Your task to perform on an android device: open app "Truecaller" Image 0: 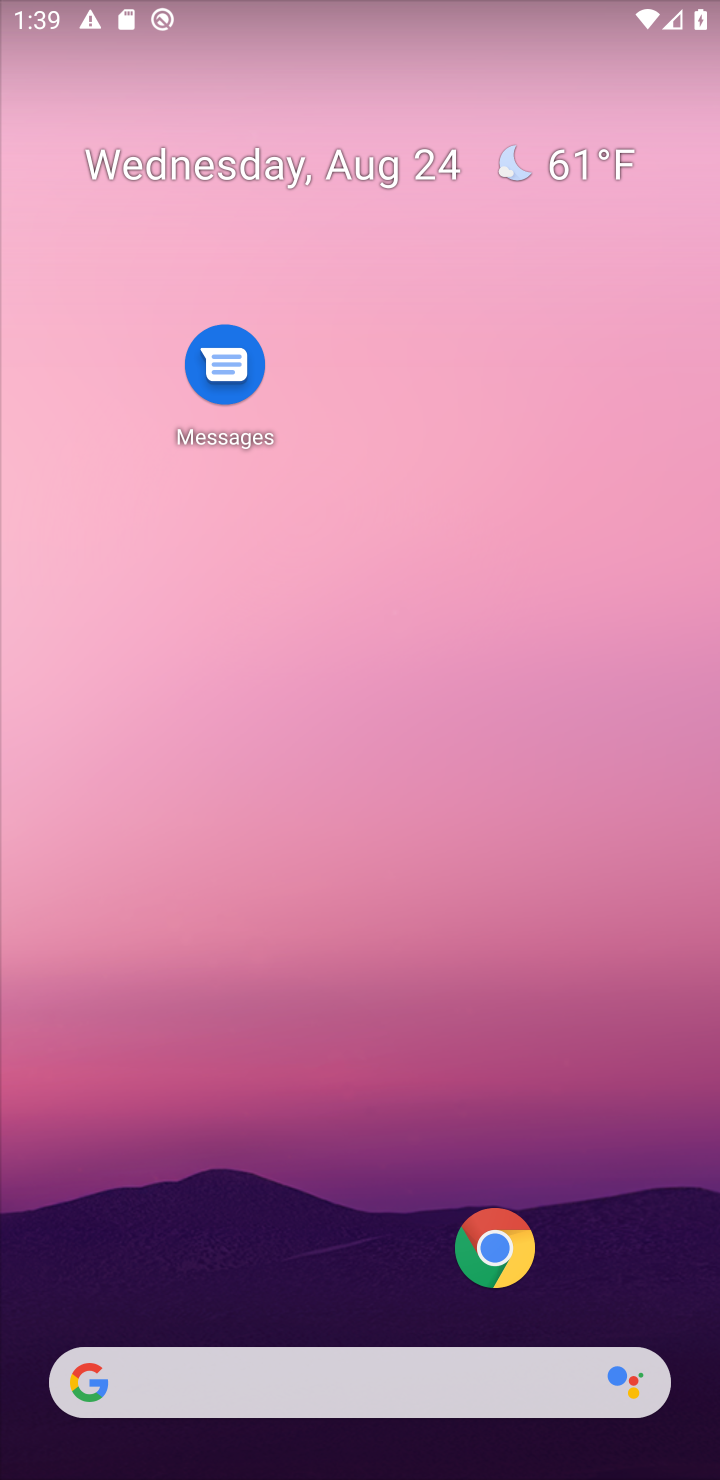
Step 0: drag from (248, 1349) to (353, 333)
Your task to perform on an android device: open app "Truecaller" Image 1: 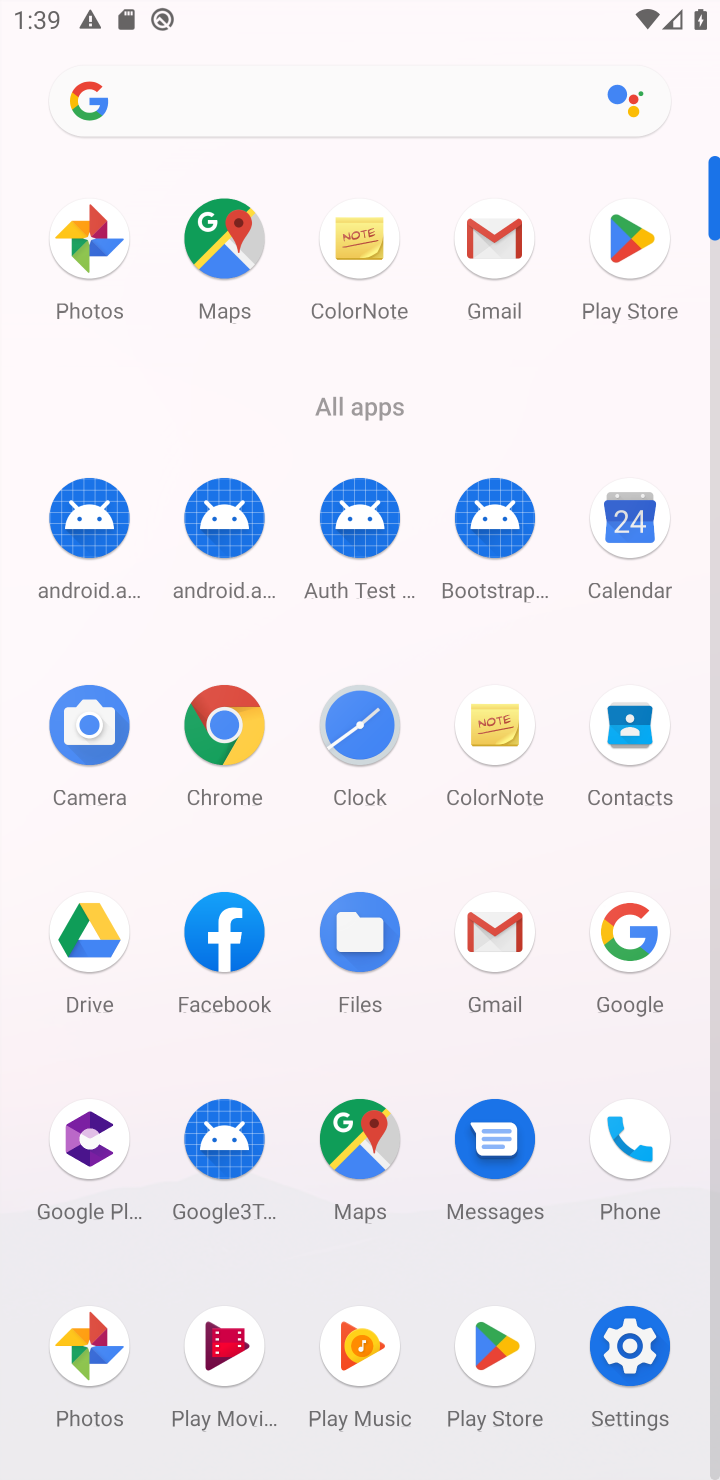
Step 1: click (635, 236)
Your task to perform on an android device: open app "Truecaller" Image 2: 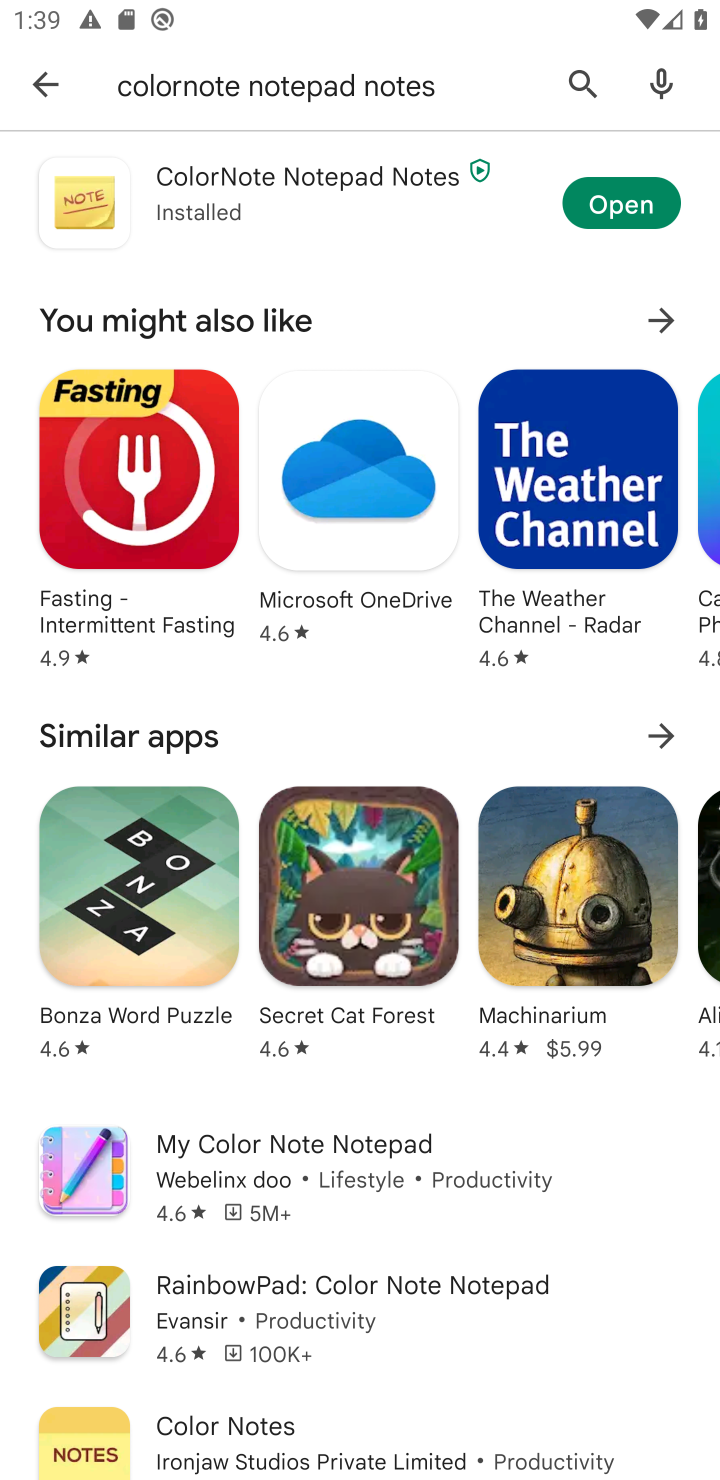
Step 2: click (51, 65)
Your task to perform on an android device: open app "Truecaller" Image 3: 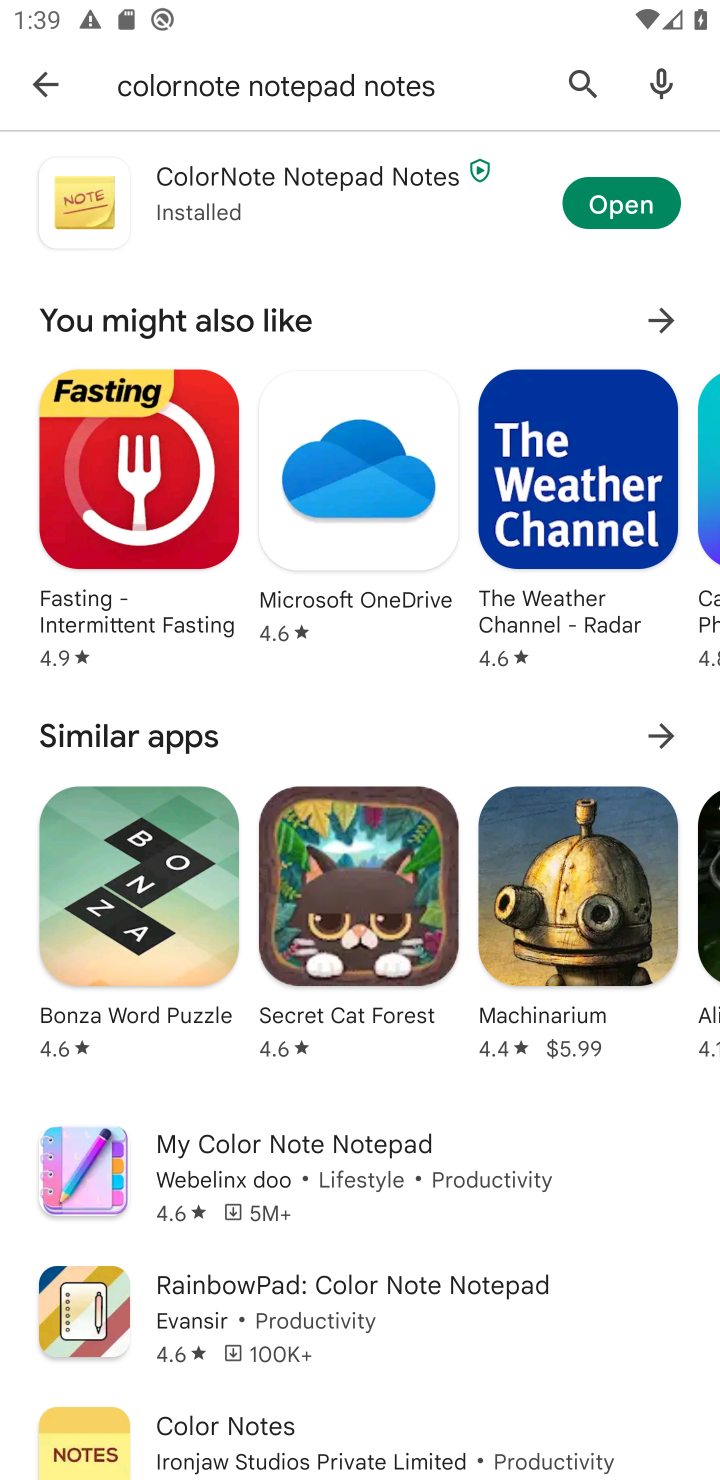
Step 3: click (567, 85)
Your task to perform on an android device: open app "Truecaller" Image 4: 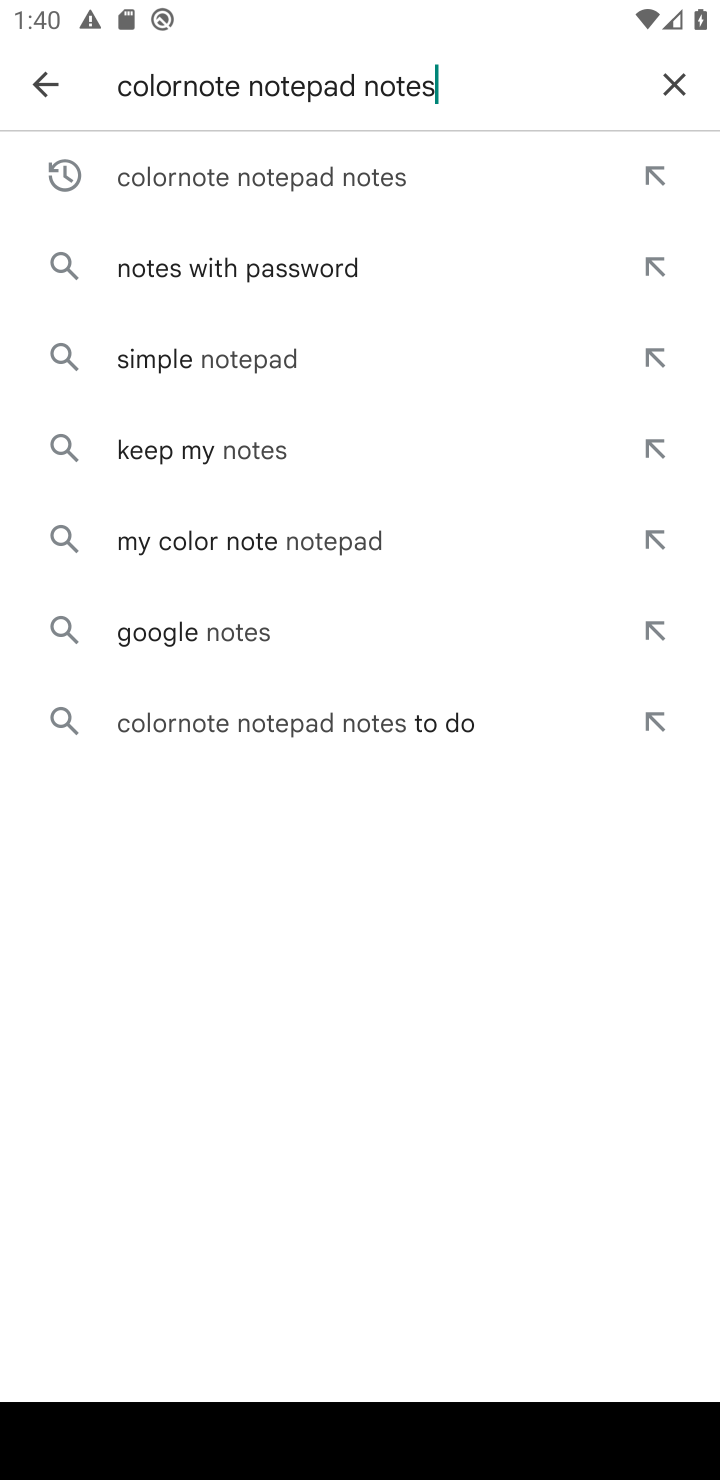
Step 4: click (687, 78)
Your task to perform on an android device: open app "Truecaller" Image 5: 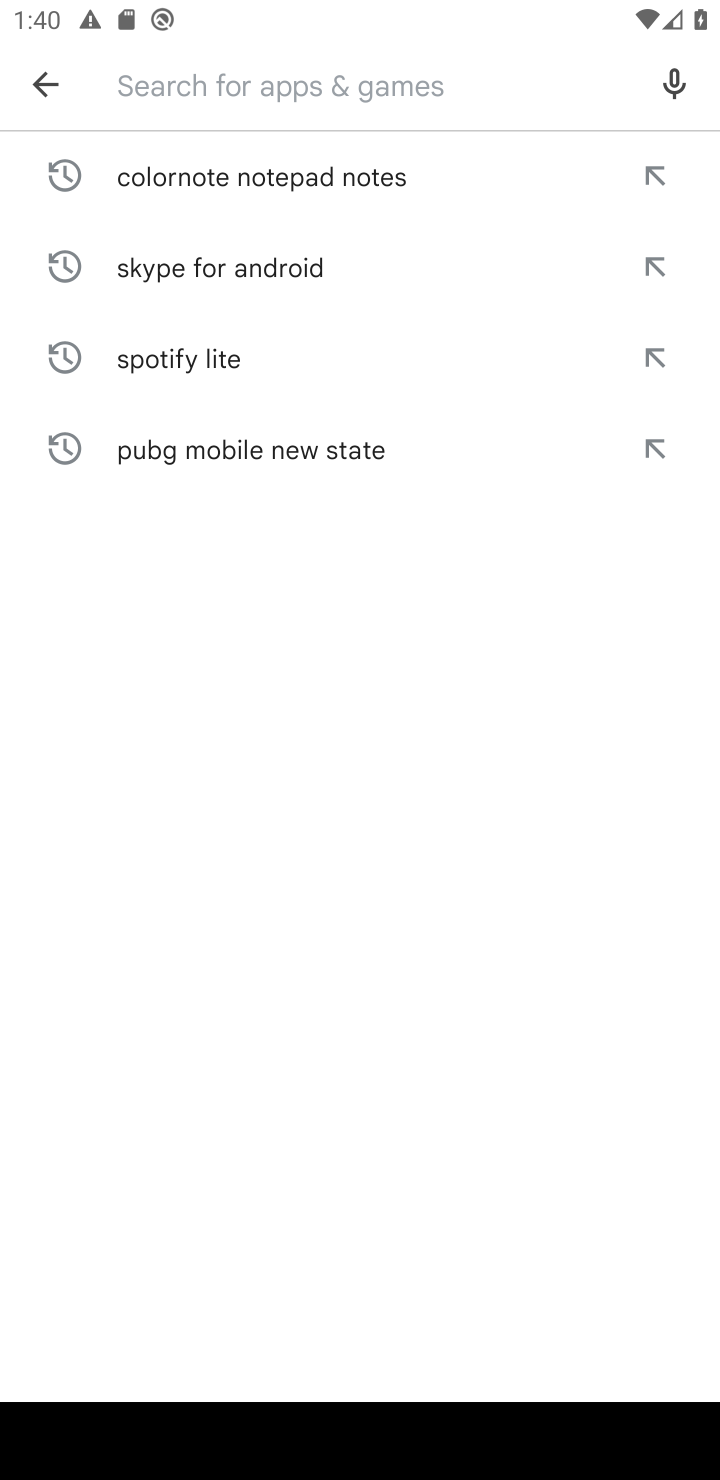
Step 5: click (192, 83)
Your task to perform on an android device: open app "Truecaller" Image 6: 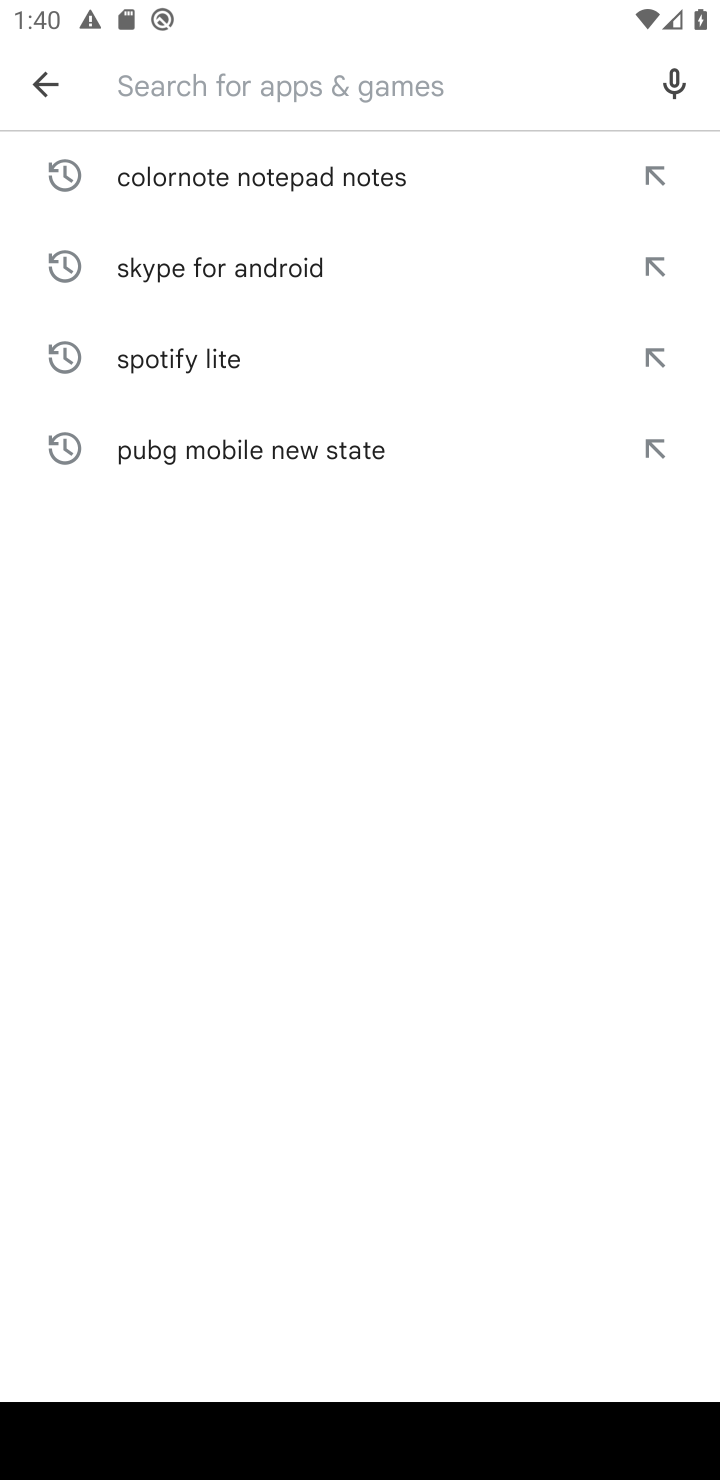
Step 6: type "truecaller "
Your task to perform on an android device: open app "Truecaller" Image 7: 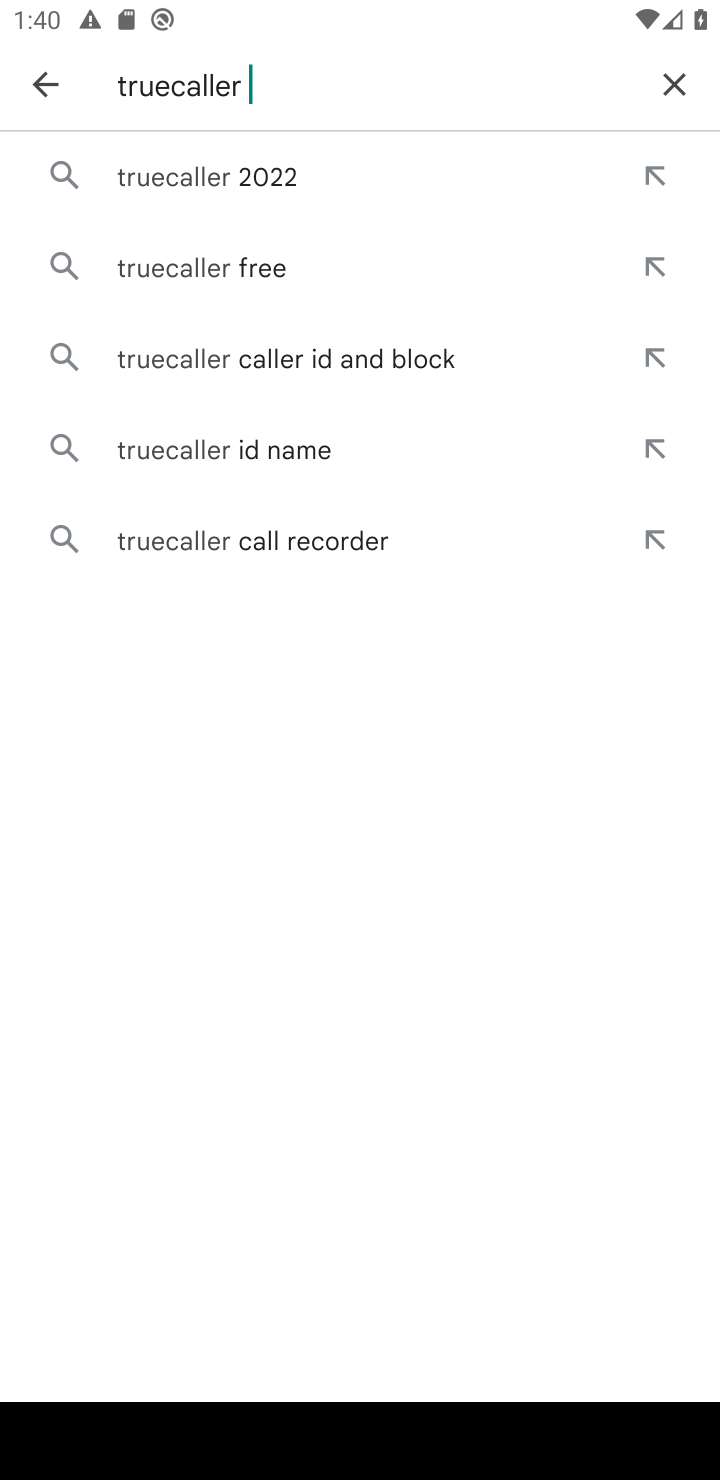
Step 7: click (258, 189)
Your task to perform on an android device: open app "Truecaller" Image 8: 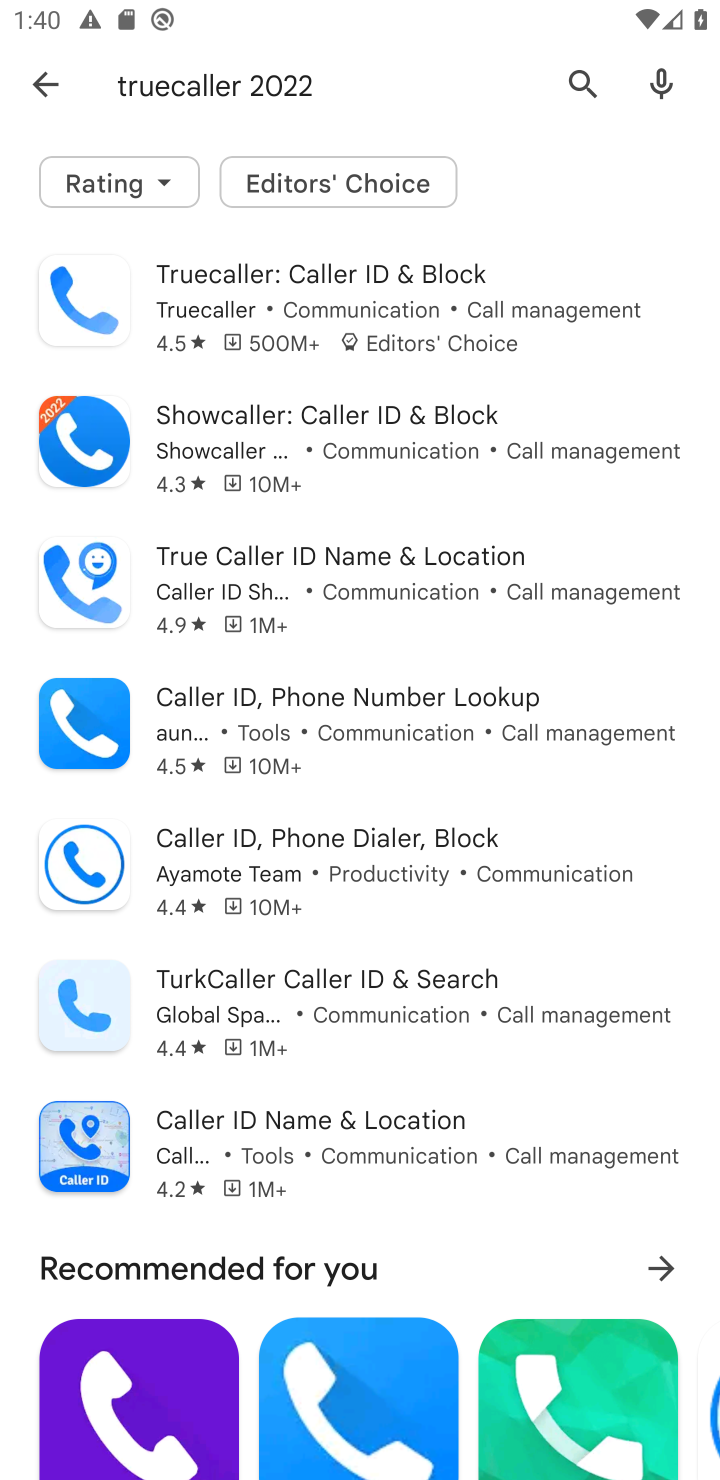
Step 8: click (251, 276)
Your task to perform on an android device: open app "Truecaller" Image 9: 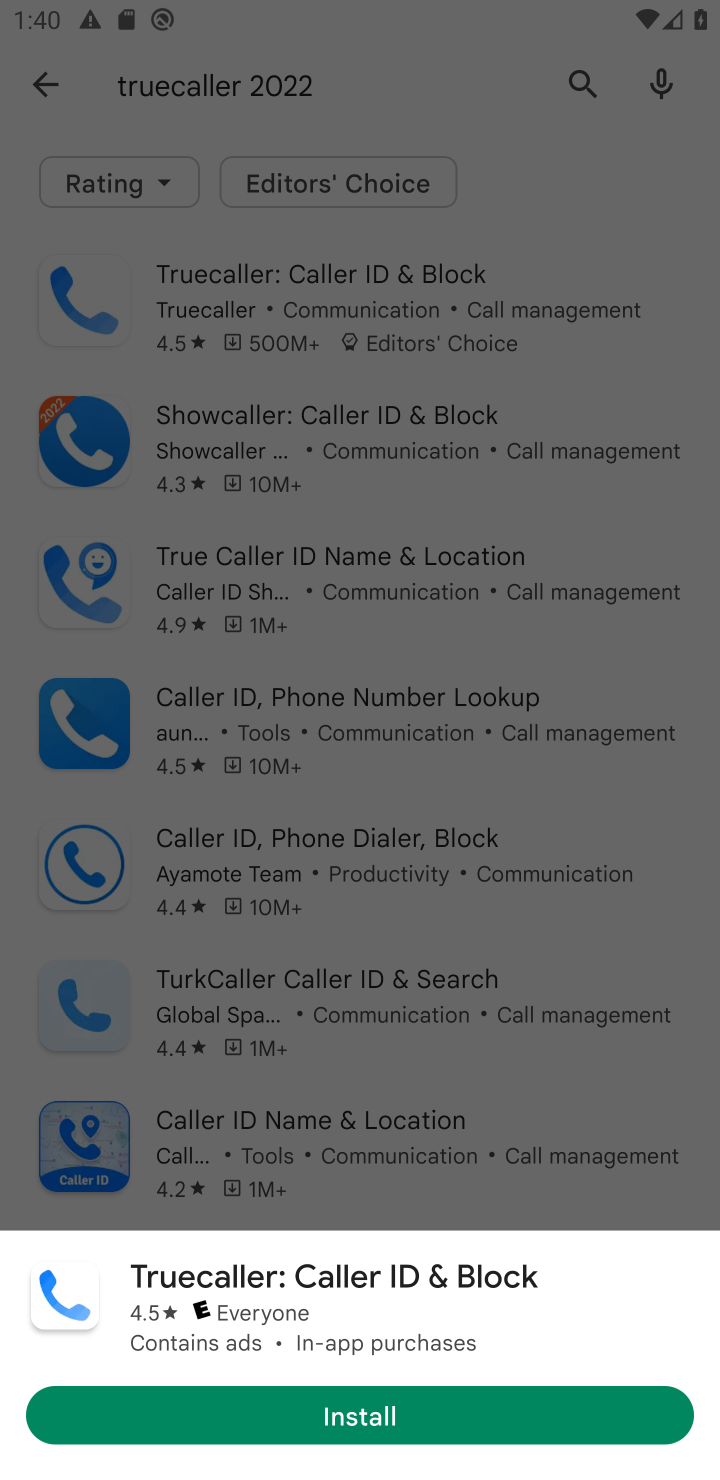
Step 9: click (423, 1425)
Your task to perform on an android device: open app "Truecaller" Image 10: 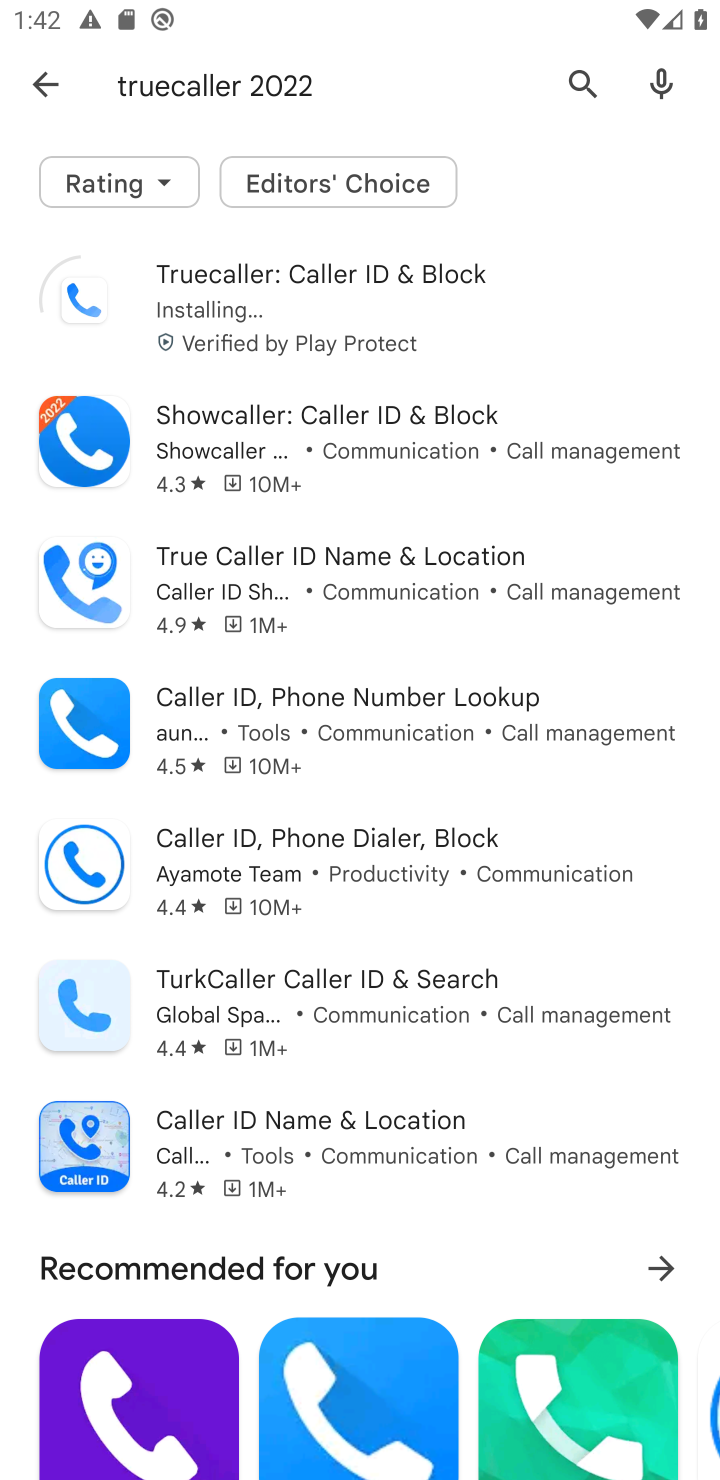
Step 10: click (363, 306)
Your task to perform on an android device: open app "Truecaller" Image 11: 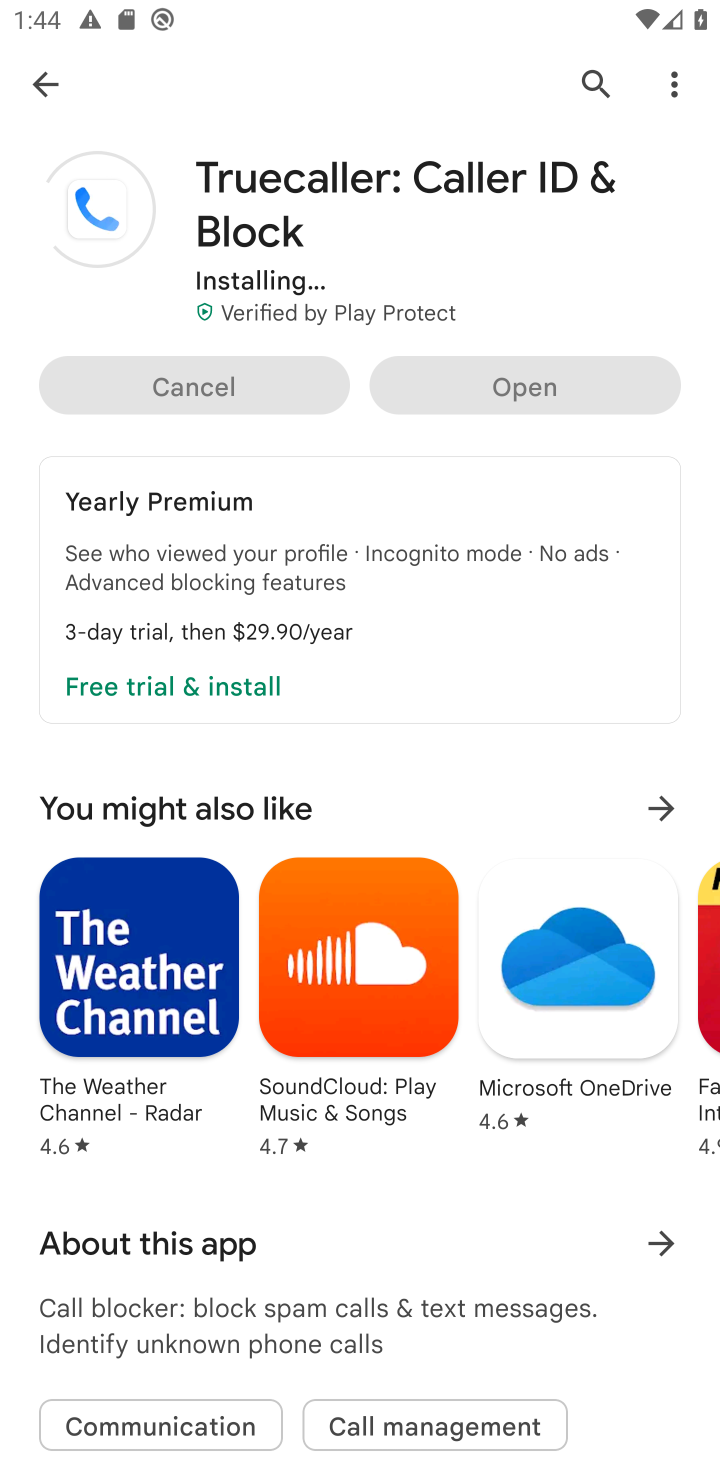
Step 11: task complete